Your task to perform on an android device: toggle notification dots Image 0: 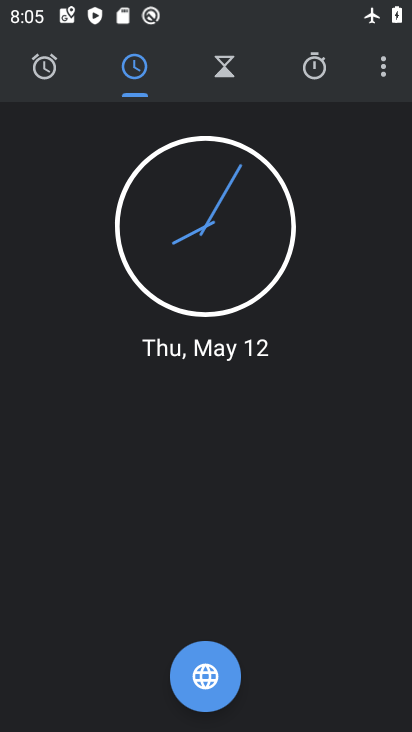
Step 0: press home button
Your task to perform on an android device: toggle notification dots Image 1: 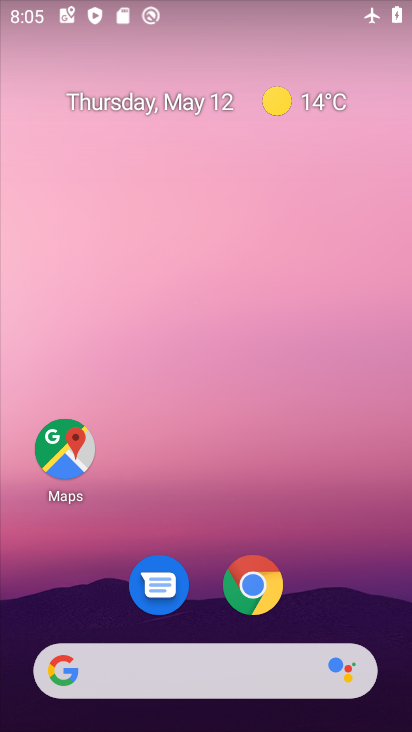
Step 1: drag from (246, 486) to (227, 84)
Your task to perform on an android device: toggle notification dots Image 2: 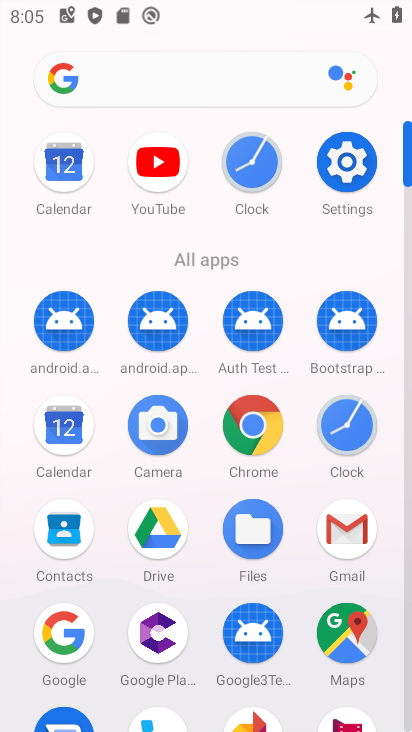
Step 2: click (343, 174)
Your task to perform on an android device: toggle notification dots Image 3: 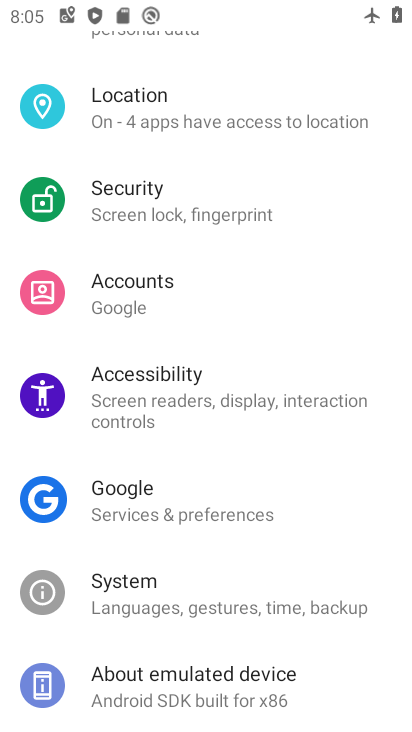
Step 3: drag from (256, 278) to (273, 593)
Your task to perform on an android device: toggle notification dots Image 4: 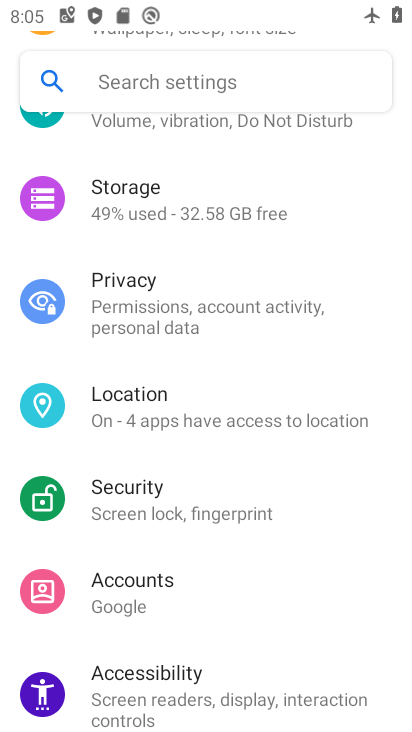
Step 4: drag from (236, 256) to (248, 637)
Your task to perform on an android device: toggle notification dots Image 5: 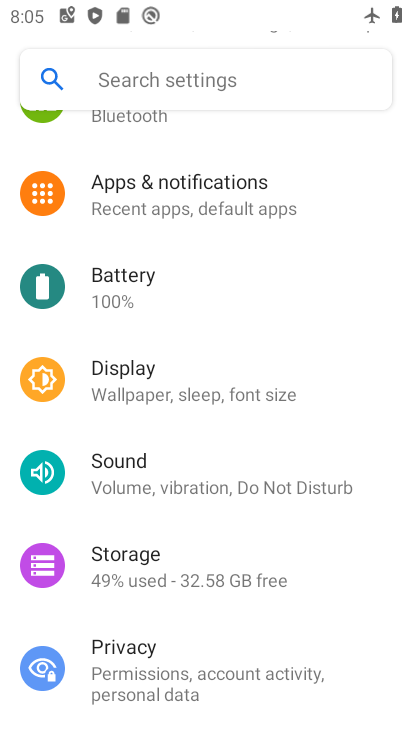
Step 5: click (186, 187)
Your task to perform on an android device: toggle notification dots Image 6: 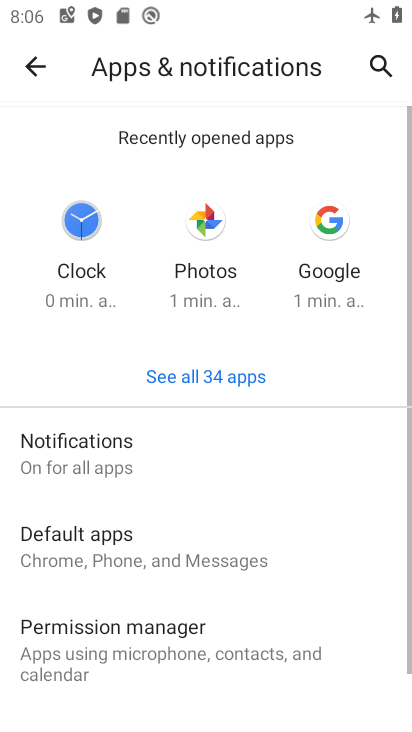
Step 6: click (164, 449)
Your task to perform on an android device: toggle notification dots Image 7: 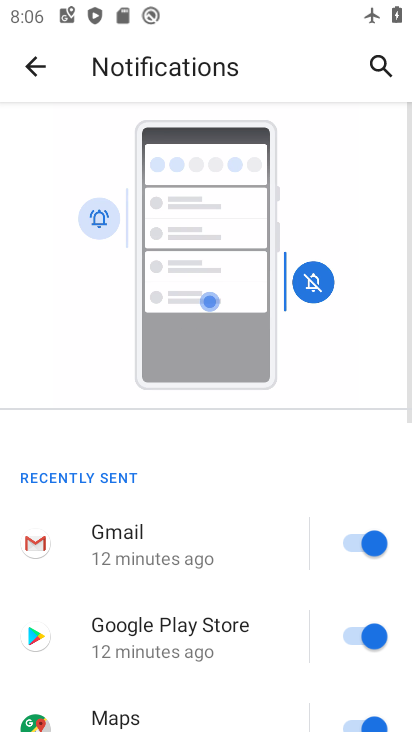
Step 7: drag from (209, 594) to (224, 84)
Your task to perform on an android device: toggle notification dots Image 8: 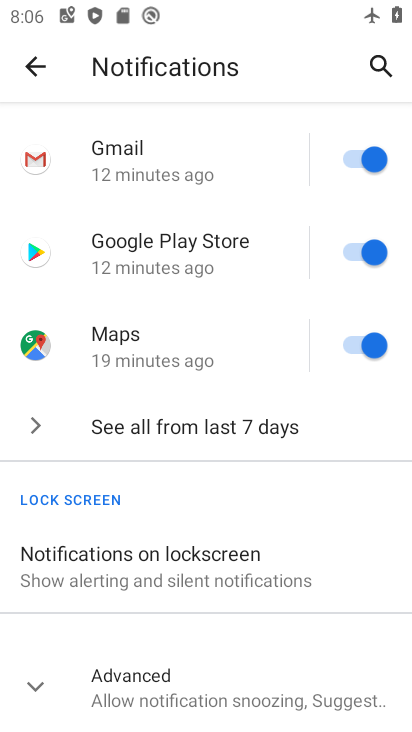
Step 8: click (34, 682)
Your task to perform on an android device: toggle notification dots Image 9: 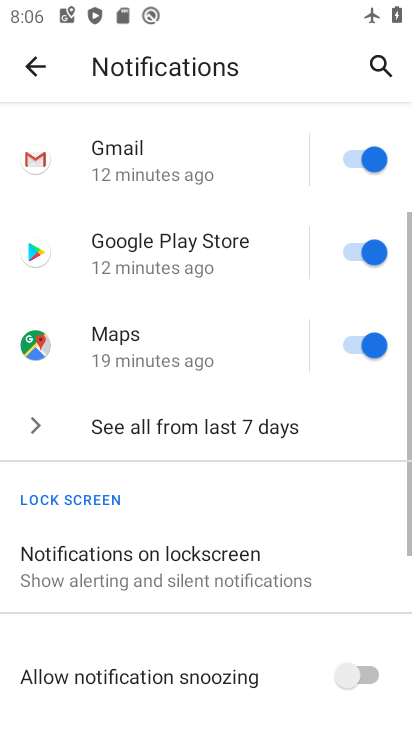
Step 9: drag from (194, 597) to (211, 150)
Your task to perform on an android device: toggle notification dots Image 10: 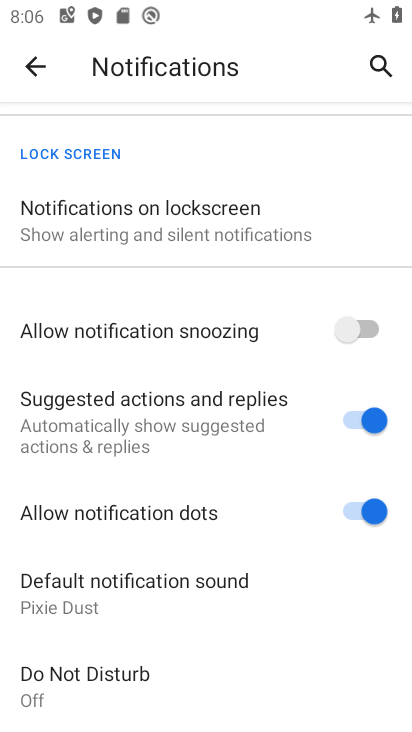
Step 10: click (370, 507)
Your task to perform on an android device: toggle notification dots Image 11: 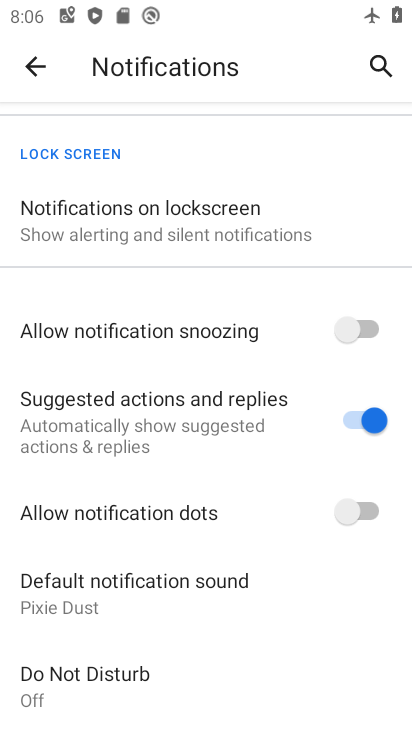
Step 11: task complete